Your task to perform on an android device: Search for sushi restaurants on Maps Image 0: 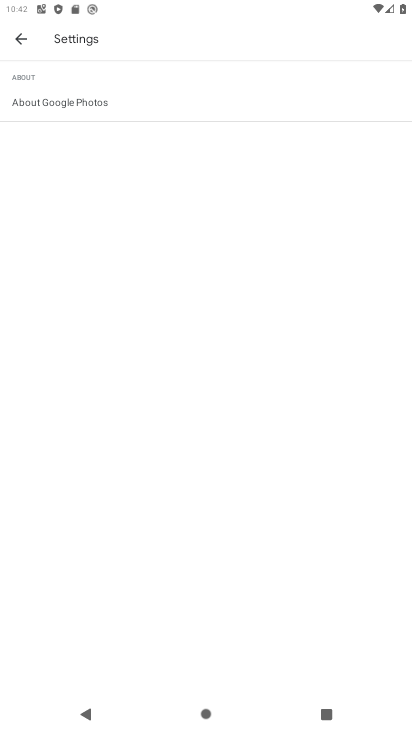
Step 0: press home button
Your task to perform on an android device: Search for sushi restaurants on Maps Image 1: 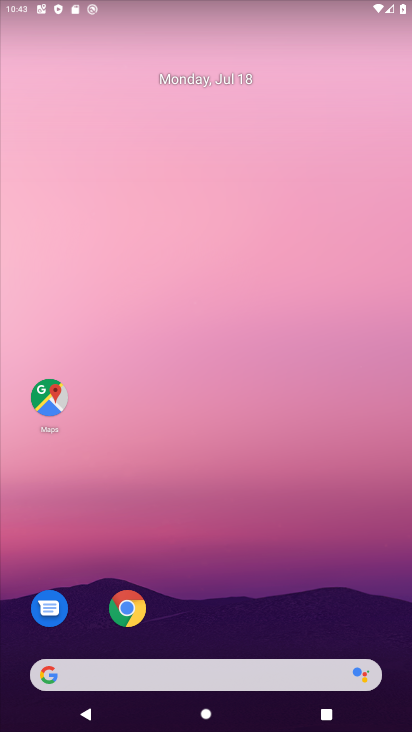
Step 1: click (59, 385)
Your task to perform on an android device: Search for sushi restaurants on Maps Image 2: 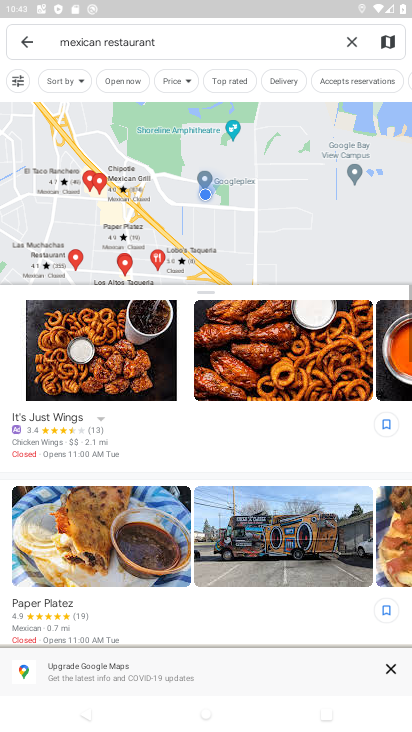
Step 2: click (348, 43)
Your task to perform on an android device: Search for sushi restaurants on Maps Image 3: 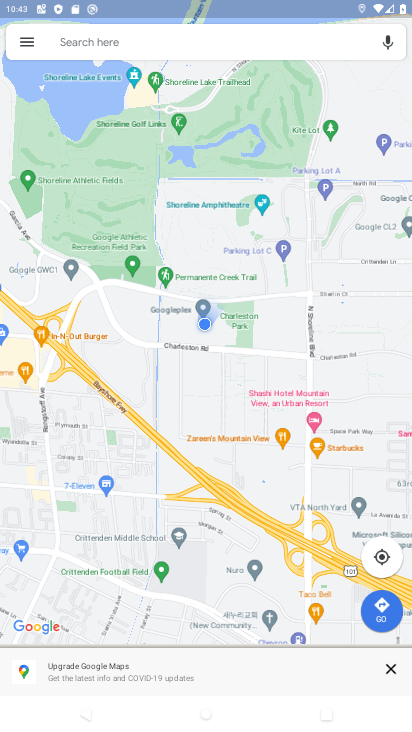
Step 3: click (125, 45)
Your task to perform on an android device: Search for sushi restaurants on Maps Image 4: 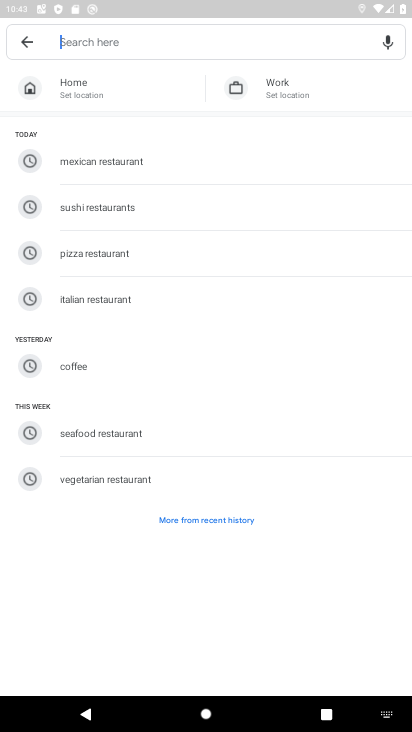
Step 4: type "sushi restaurants"
Your task to perform on an android device: Search for sushi restaurants on Maps Image 5: 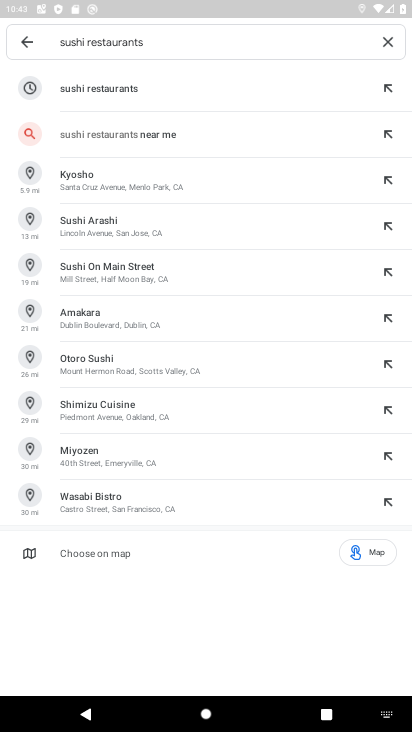
Step 5: click (95, 91)
Your task to perform on an android device: Search for sushi restaurants on Maps Image 6: 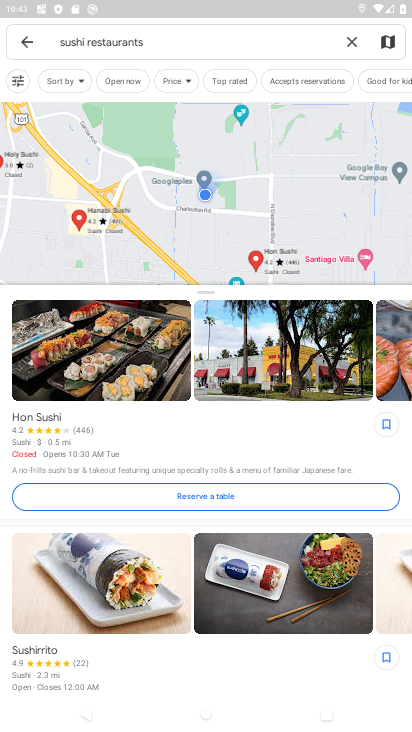
Step 6: task complete